Your task to perform on an android device: uninstall "Flipkart Online Shopping App" Image 0: 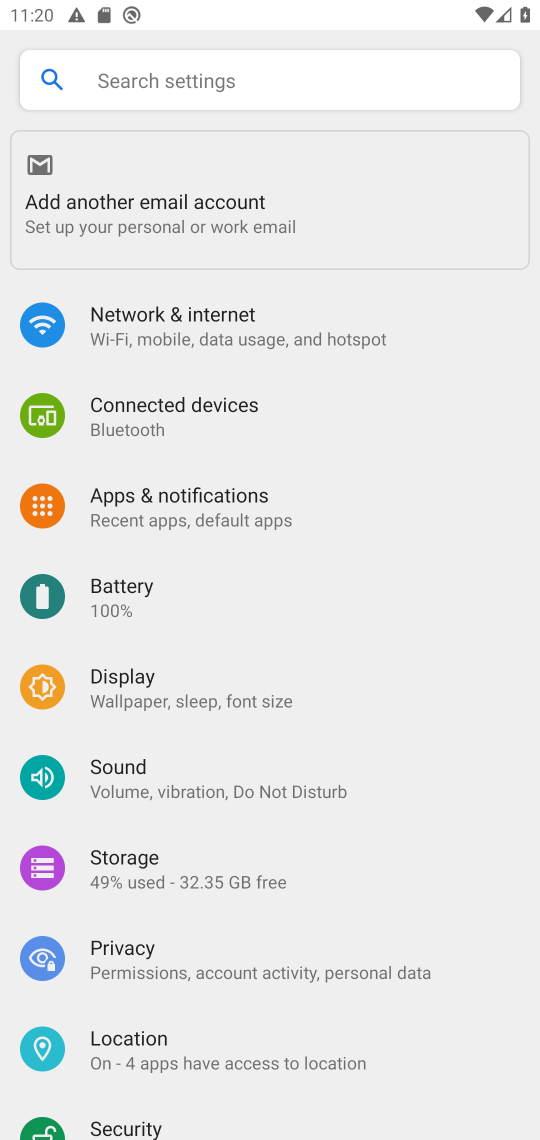
Step 0: press home button
Your task to perform on an android device: uninstall "Flipkart Online Shopping App" Image 1: 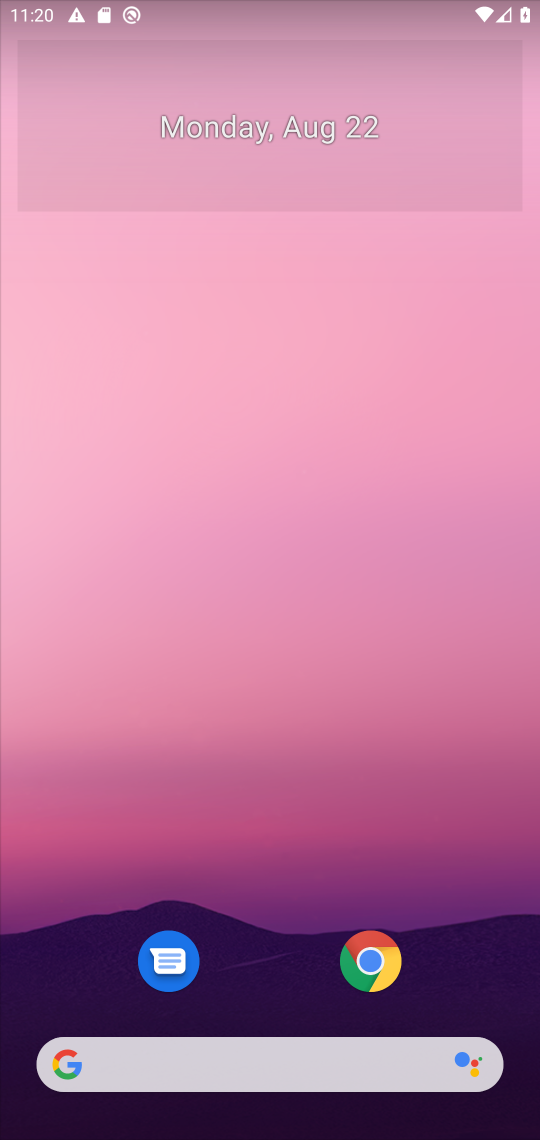
Step 1: click (322, 1023)
Your task to perform on an android device: uninstall "Flipkart Online Shopping App" Image 2: 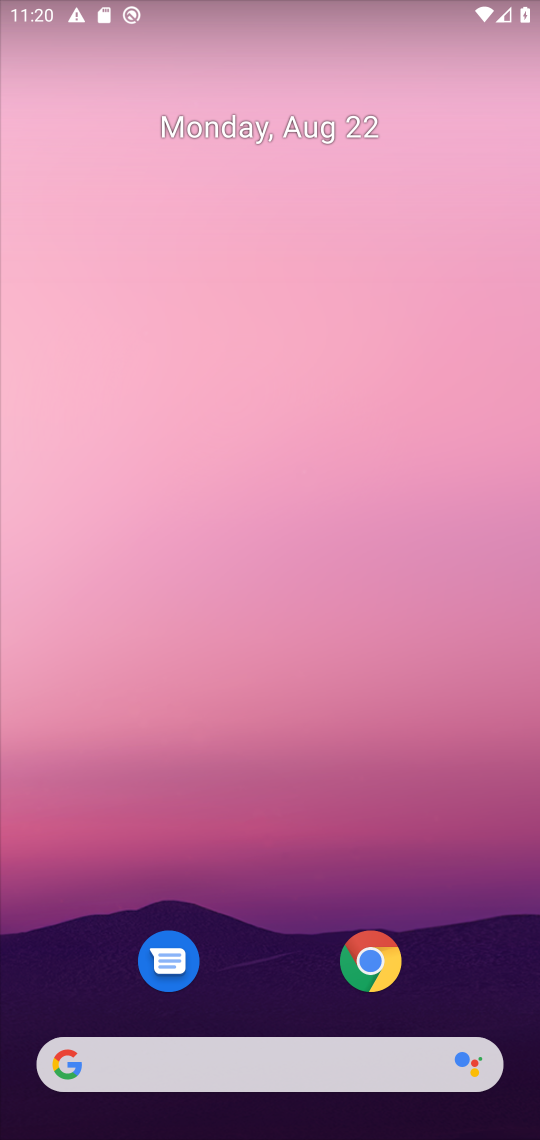
Step 2: drag from (258, 1003) to (287, 26)
Your task to perform on an android device: uninstall "Flipkart Online Shopping App" Image 3: 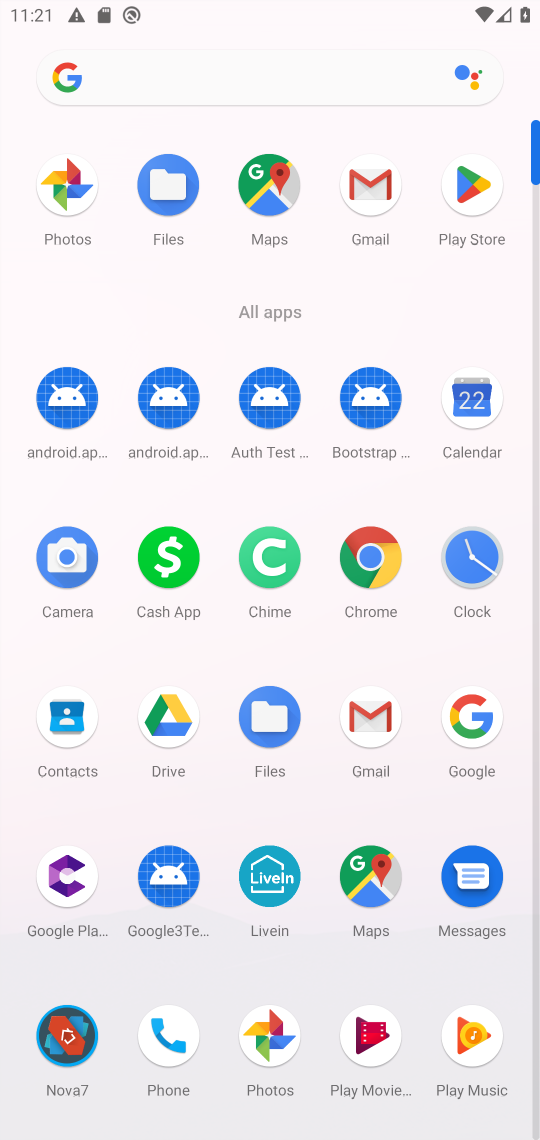
Step 3: click (462, 234)
Your task to perform on an android device: uninstall "Flipkart Online Shopping App" Image 4: 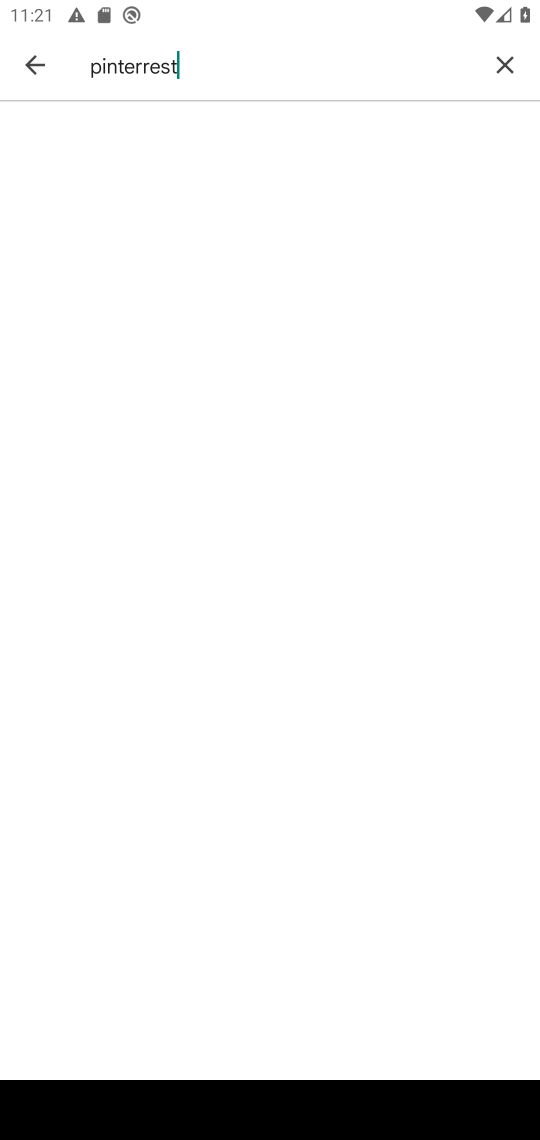
Step 4: click (497, 70)
Your task to perform on an android device: uninstall "Flipkart Online Shopping App" Image 5: 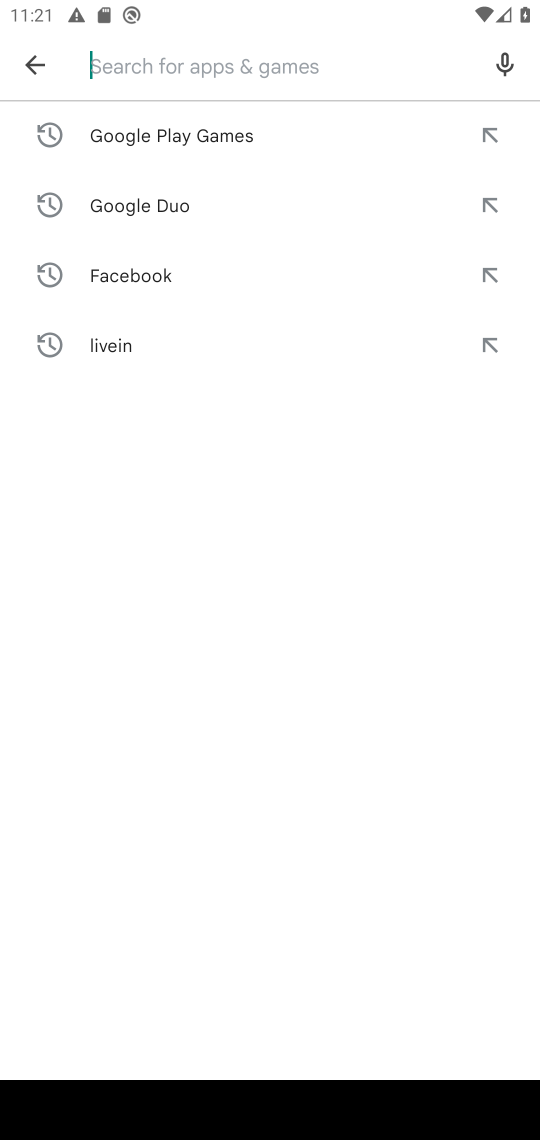
Step 5: type "flipkart"
Your task to perform on an android device: uninstall "Flipkart Online Shopping App" Image 6: 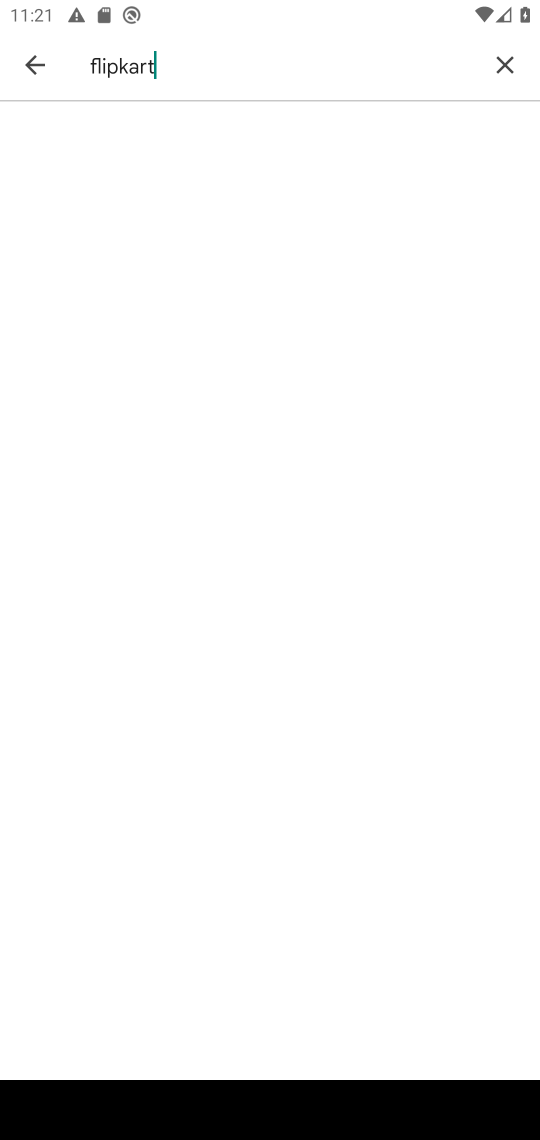
Step 6: task complete